Your task to perform on an android device: What is the recent news? Image 0: 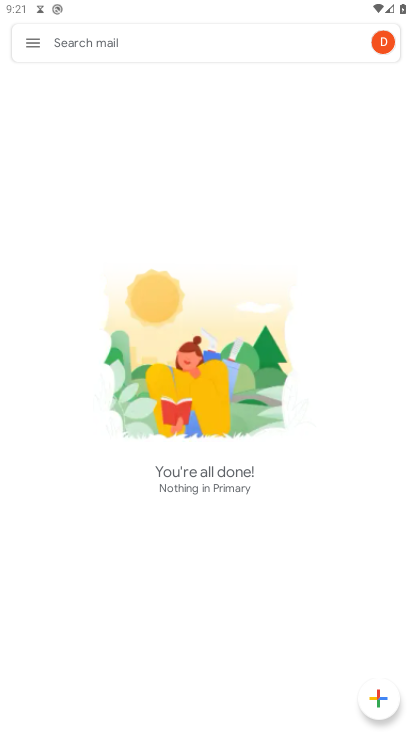
Step 0: press home button
Your task to perform on an android device: What is the recent news? Image 1: 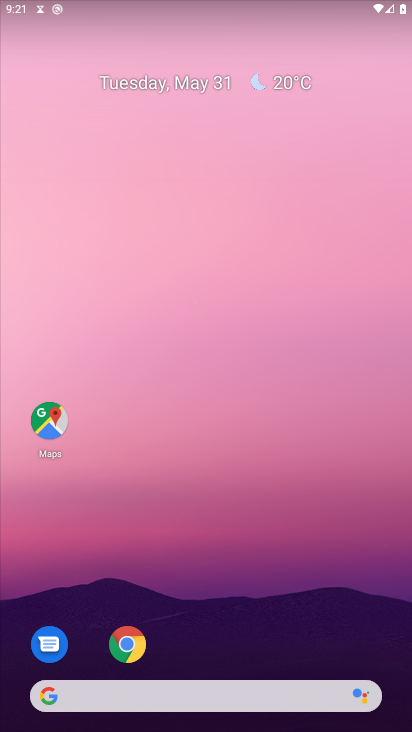
Step 1: task complete